Your task to perform on an android device: Show the shopping cart on ebay.com. Search for "logitech g502" on ebay.com, select the first entry, and add it to the cart. Image 0: 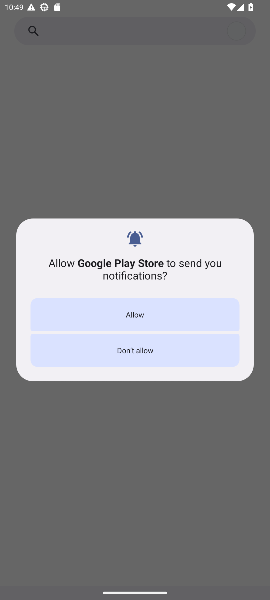
Step 0: press home button
Your task to perform on an android device: Show the shopping cart on ebay.com. Search for "logitech g502" on ebay.com, select the first entry, and add it to the cart. Image 1: 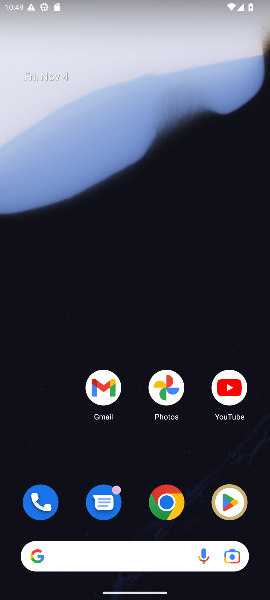
Step 1: drag from (114, 480) to (188, 101)
Your task to perform on an android device: Show the shopping cart on ebay.com. Search for "logitech g502" on ebay.com, select the first entry, and add it to the cart. Image 2: 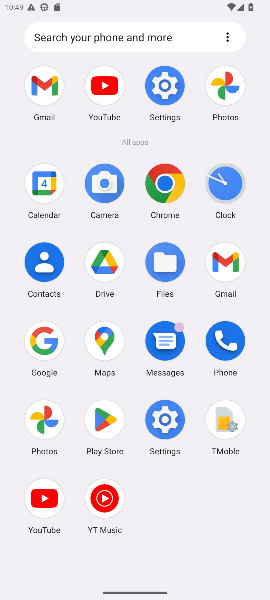
Step 2: click (173, 182)
Your task to perform on an android device: Show the shopping cart on ebay.com. Search for "logitech g502" on ebay.com, select the first entry, and add it to the cart. Image 3: 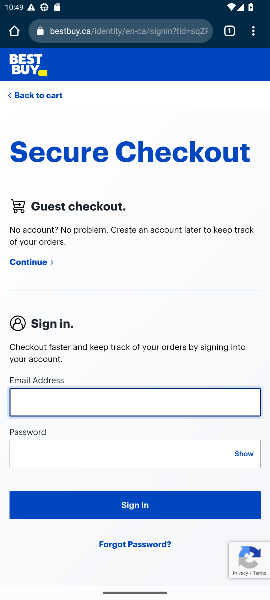
Step 3: click (158, 43)
Your task to perform on an android device: Show the shopping cart on ebay.com. Search for "logitech g502" on ebay.com, select the first entry, and add it to the cart. Image 4: 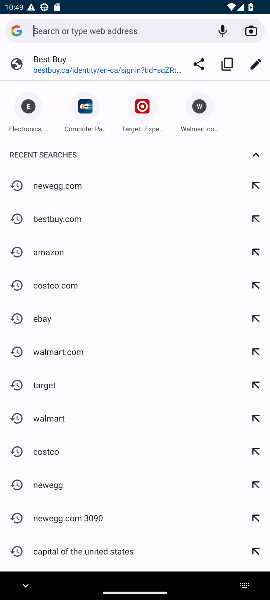
Step 4: type "ebay.com"
Your task to perform on an android device: Show the shopping cart on ebay.com. Search for "logitech g502" on ebay.com, select the first entry, and add it to the cart. Image 5: 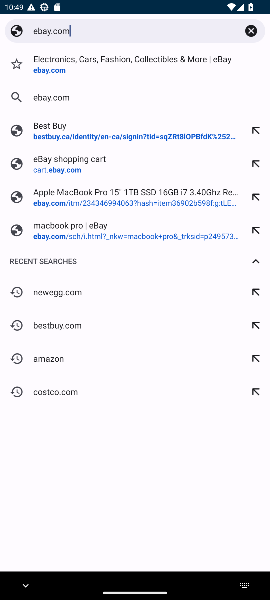
Step 5: press enter
Your task to perform on an android device: Show the shopping cart on ebay.com. Search for "logitech g502" on ebay.com, select the first entry, and add it to the cart. Image 6: 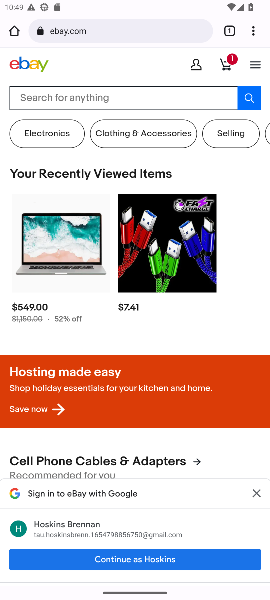
Step 6: click (190, 93)
Your task to perform on an android device: Show the shopping cart on ebay.com. Search for "logitech g502" on ebay.com, select the first entry, and add it to the cart. Image 7: 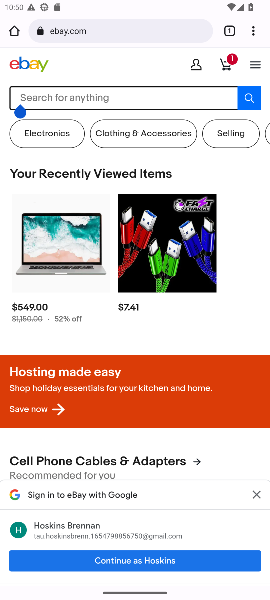
Step 7: click (226, 59)
Your task to perform on an android device: Show the shopping cart on ebay.com. Search for "logitech g502" on ebay.com, select the first entry, and add it to the cart. Image 8: 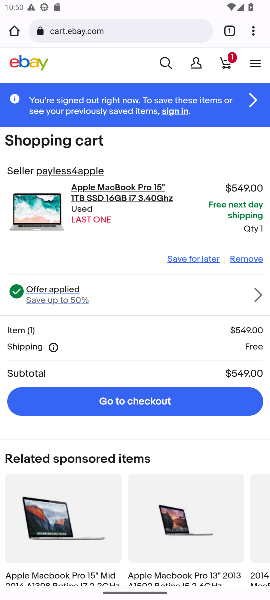
Step 8: click (168, 60)
Your task to perform on an android device: Show the shopping cart on ebay.com. Search for "logitech g502" on ebay.com, select the first entry, and add it to the cart. Image 9: 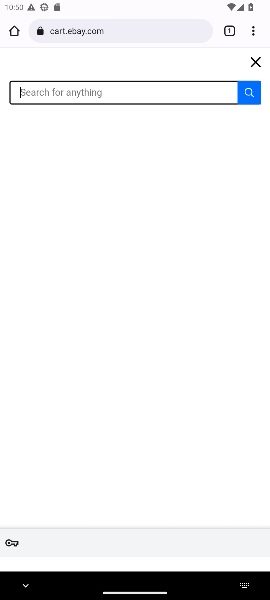
Step 9: type "logitech g502"
Your task to perform on an android device: Show the shopping cart on ebay.com. Search for "logitech g502" on ebay.com, select the first entry, and add it to the cart. Image 10: 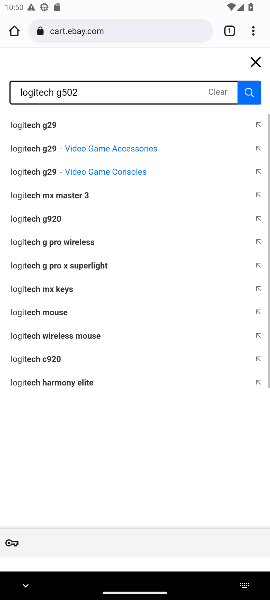
Step 10: press enter
Your task to perform on an android device: Show the shopping cart on ebay.com. Search for "logitech g502" on ebay.com, select the first entry, and add it to the cart. Image 11: 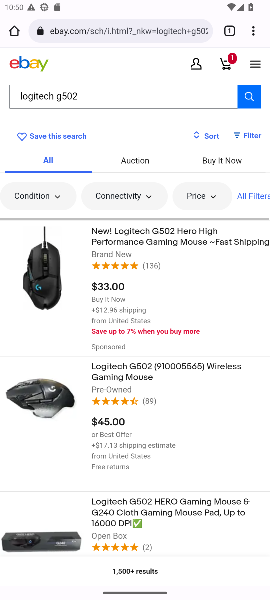
Step 11: click (66, 275)
Your task to perform on an android device: Show the shopping cart on ebay.com. Search for "logitech g502" on ebay.com, select the first entry, and add it to the cart. Image 12: 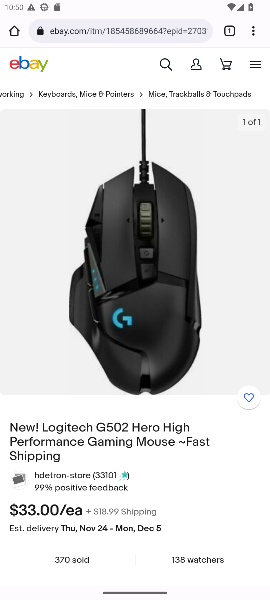
Step 12: drag from (175, 507) to (262, 164)
Your task to perform on an android device: Show the shopping cart on ebay.com. Search for "logitech g502" on ebay.com, select the first entry, and add it to the cart. Image 13: 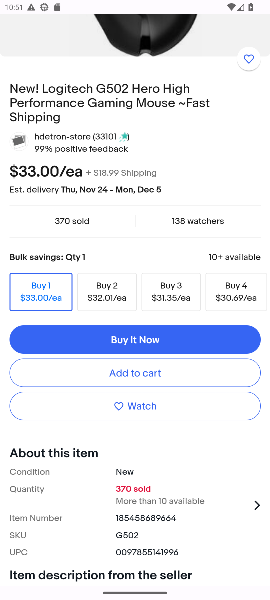
Step 13: click (193, 372)
Your task to perform on an android device: Show the shopping cart on ebay.com. Search for "logitech g502" on ebay.com, select the first entry, and add it to the cart. Image 14: 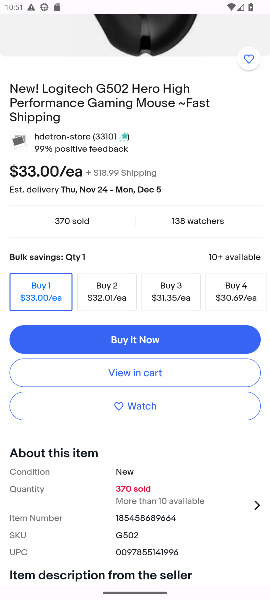
Step 14: task complete